Your task to perform on an android device: Open settings on Google Maps Image 0: 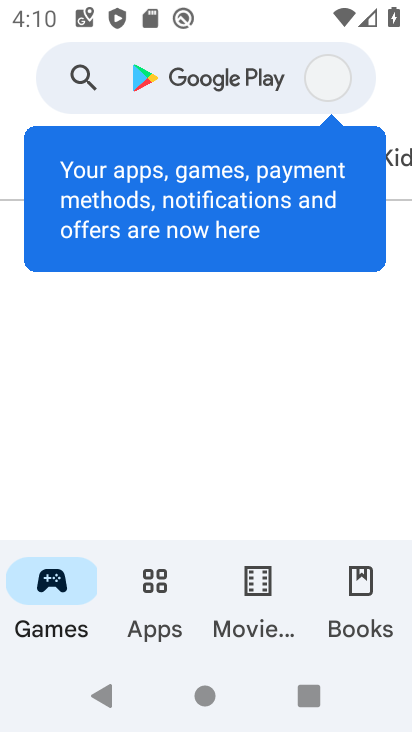
Step 0: press home button
Your task to perform on an android device: Open settings on Google Maps Image 1: 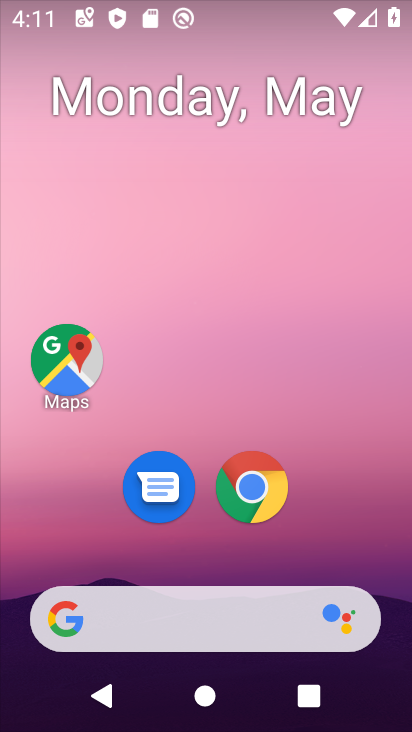
Step 1: click (62, 387)
Your task to perform on an android device: Open settings on Google Maps Image 2: 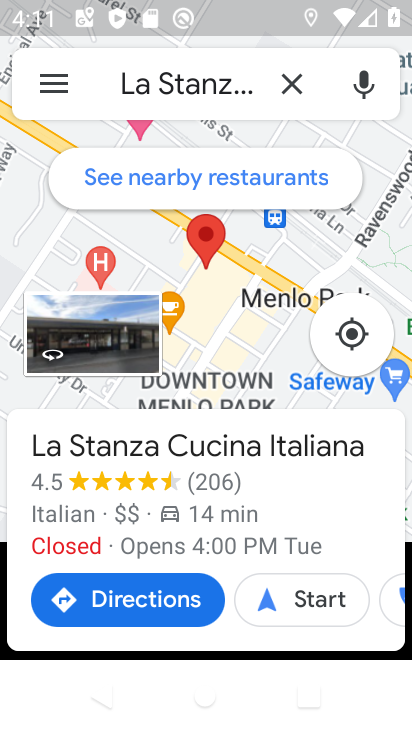
Step 2: click (59, 89)
Your task to perform on an android device: Open settings on Google Maps Image 3: 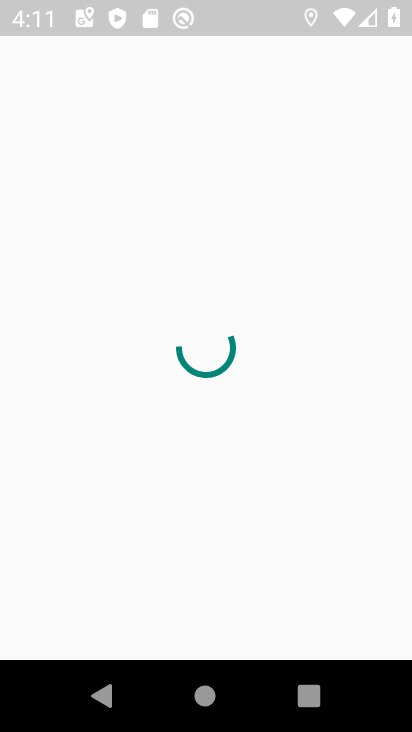
Step 3: drag from (238, 504) to (270, 123)
Your task to perform on an android device: Open settings on Google Maps Image 4: 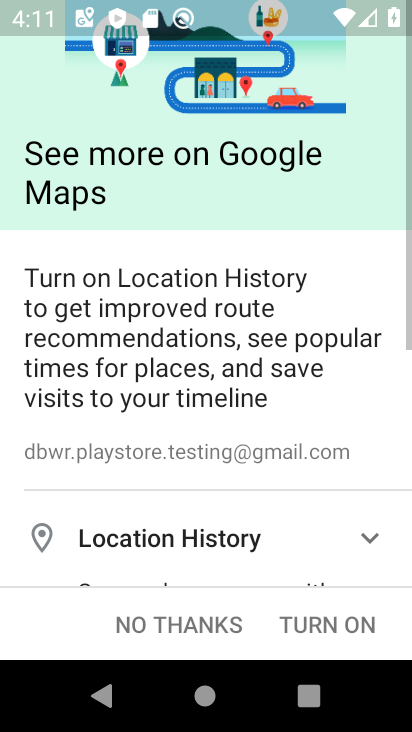
Step 4: click (204, 629)
Your task to perform on an android device: Open settings on Google Maps Image 5: 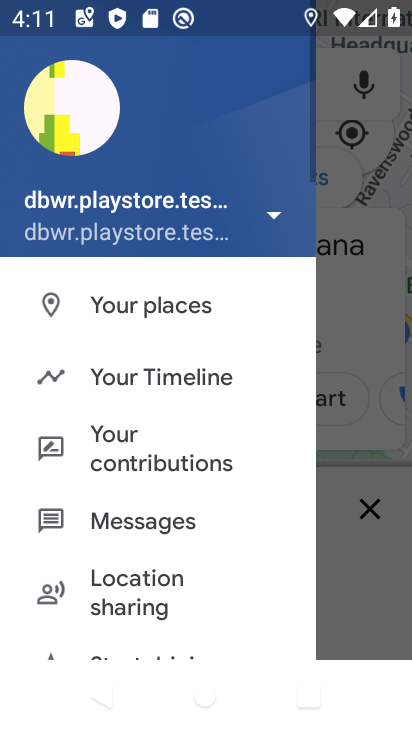
Step 5: drag from (208, 506) to (222, 91)
Your task to perform on an android device: Open settings on Google Maps Image 6: 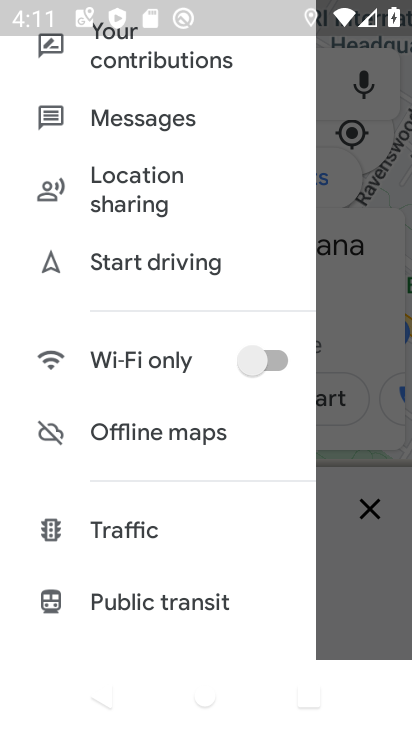
Step 6: drag from (185, 552) to (231, 83)
Your task to perform on an android device: Open settings on Google Maps Image 7: 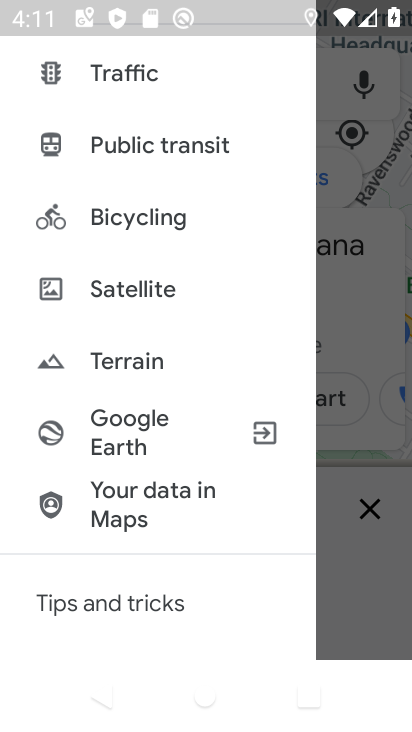
Step 7: drag from (150, 591) to (244, 109)
Your task to perform on an android device: Open settings on Google Maps Image 8: 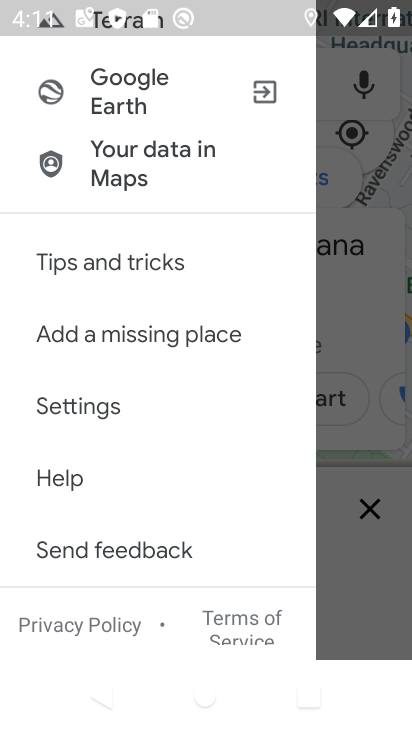
Step 8: click (109, 414)
Your task to perform on an android device: Open settings on Google Maps Image 9: 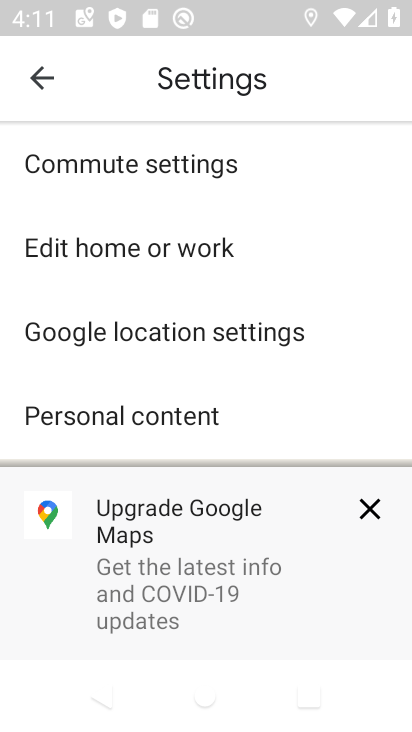
Step 9: click (362, 510)
Your task to perform on an android device: Open settings on Google Maps Image 10: 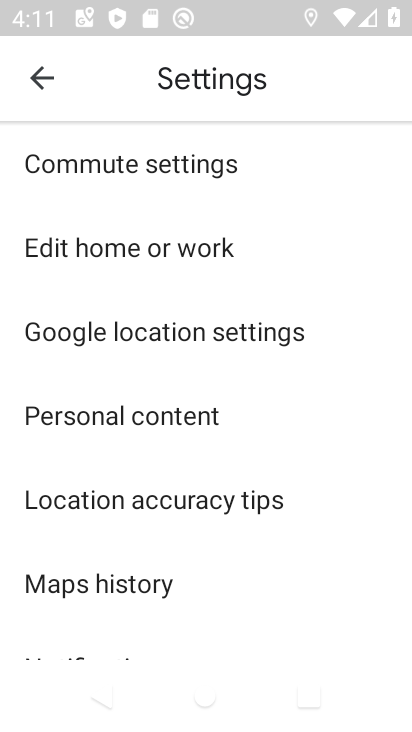
Step 10: task complete